Your task to perform on an android device: turn vacation reply on in the gmail app Image 0: 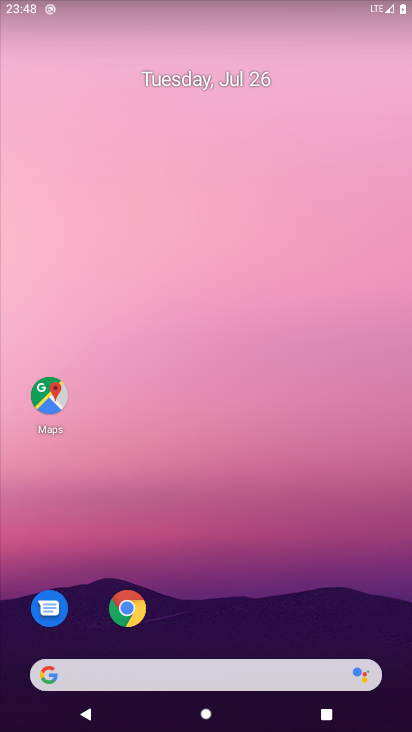
Step 0: press home button
Your task to perform on an android device: turn vacation reply on in the gmail app Image 1: 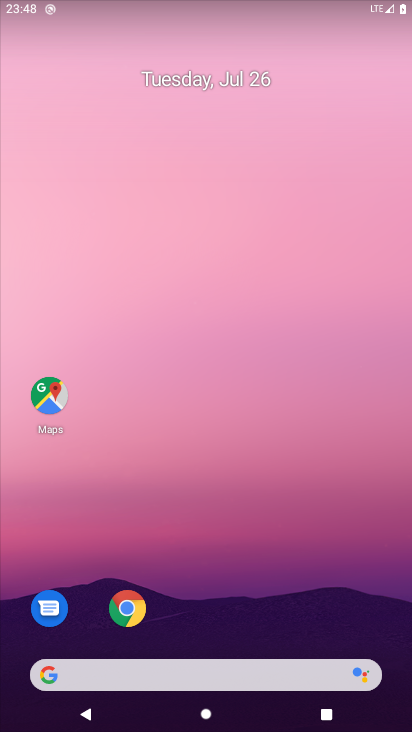
Step 1: drag from (269, 598) to (254, 172)
Your task to perform on an android device: turn vacation reply on in the gmail app Image 2: 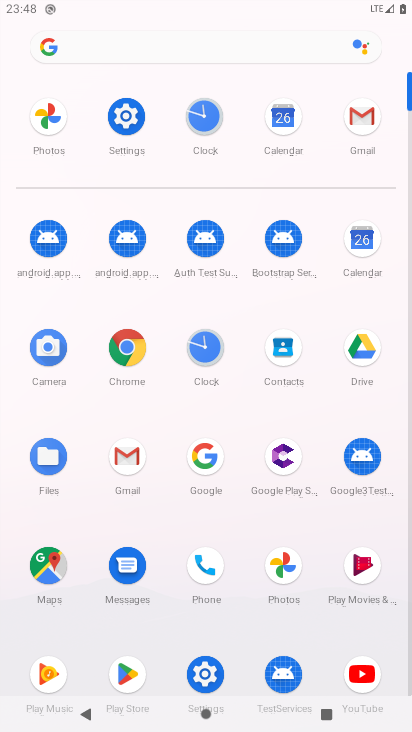
Step 2: click (358, 127)
Your task to perform on an android device: turn vacation reply on in the gmail app Image 3: 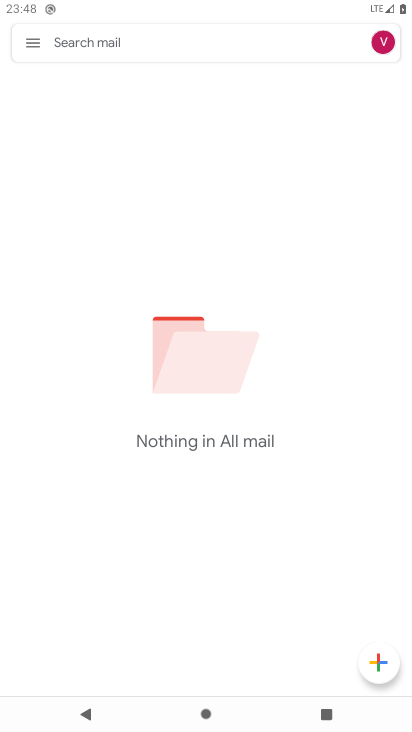
Step 3: click (28, 40)
Your task to perform on an android device: turn vacation reply on in the gmail app Image 4: 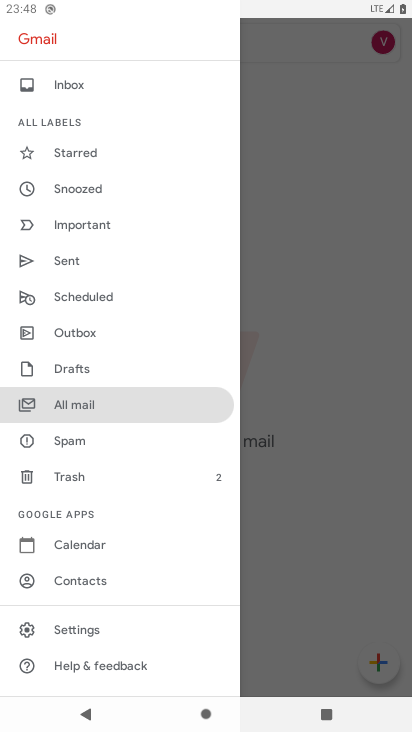
Step 4: click (90, 628)
Your task to perform on an android device: turn vacation reply on in the gmail app Image 5: 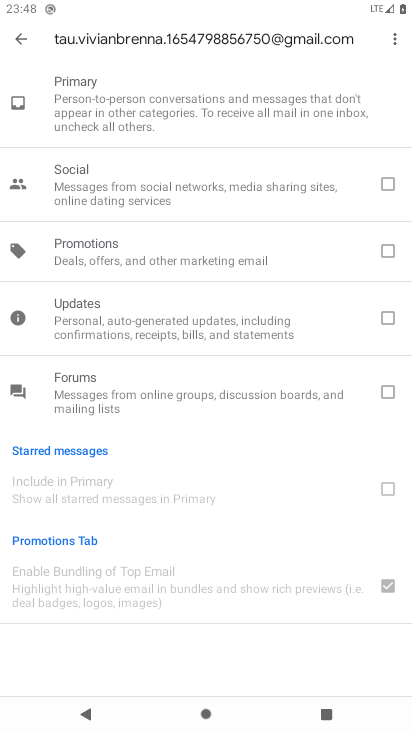
Step 5: drag from (235, 540) to (237, 378)
Your task to perform on an android device: turn vacation reply on in the gmail app Image 6: 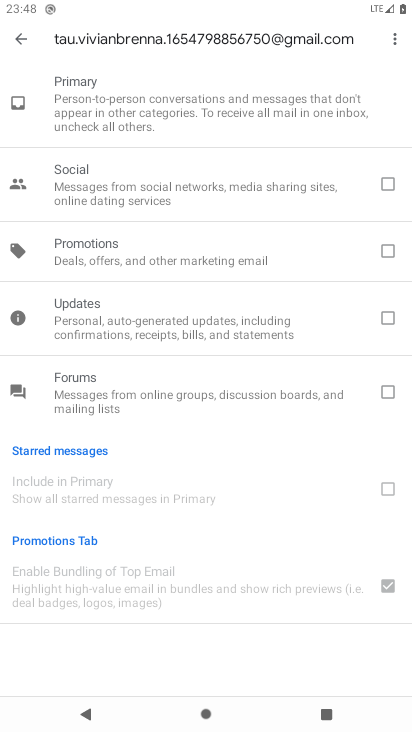
Step 6: click (12, 39)
Your task to perform on an android device: turn vacation reply on in the gmail app Image 7: 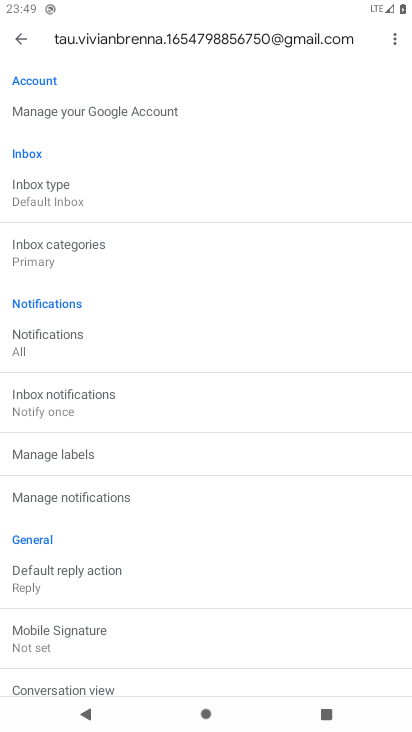
Step 7: drag from (173, 534) to (166, 269)
Your task to perform on an android device: turn vacation reply on in the gmail app Image 8: 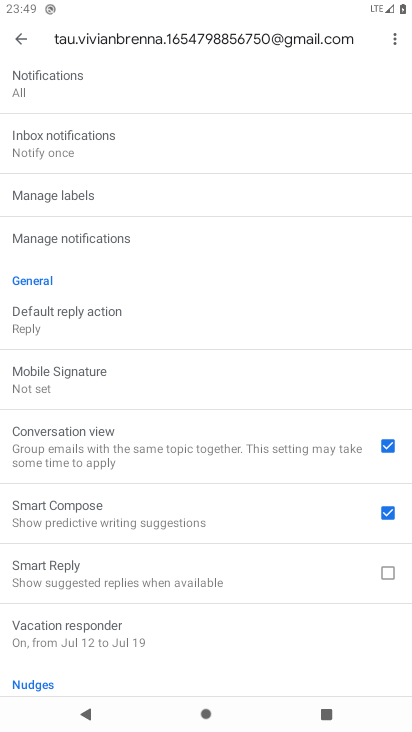
Step 8: click (81, 638)
Your task to perform on an android device: turn vacation reply on in the gmail app Image 9: 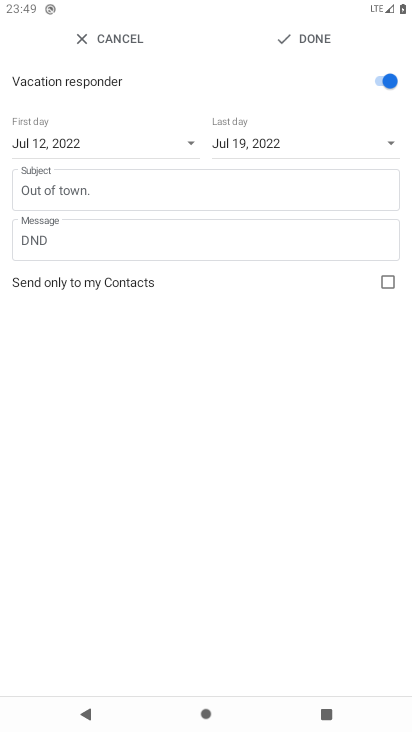
Step 9: task complete